Your task to perform on an android device: Open the stopwatch Image 0: 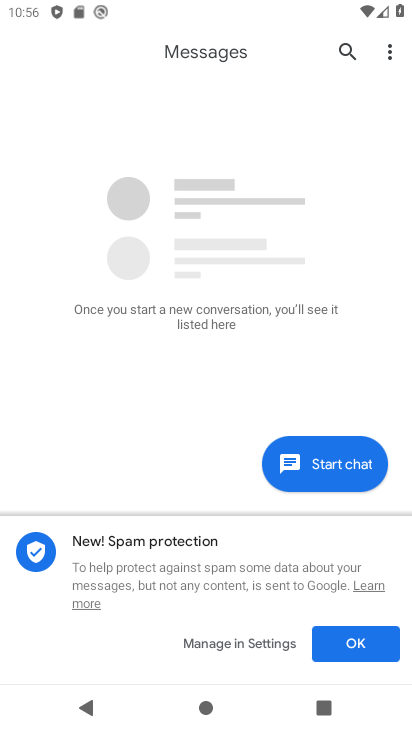
Step 0: press home button
Your task to perform on an android device: Open the stopwatch Image 1: 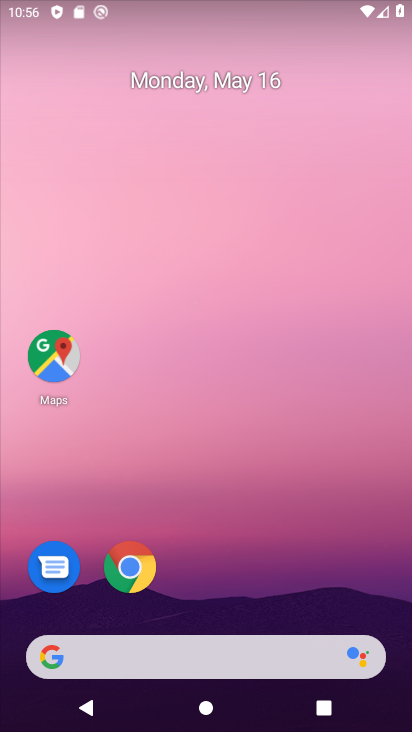
Step 1: drag from (216, 625) to (322, 27)
Your task to perform on an android device: Open the stopwatch Image 2: 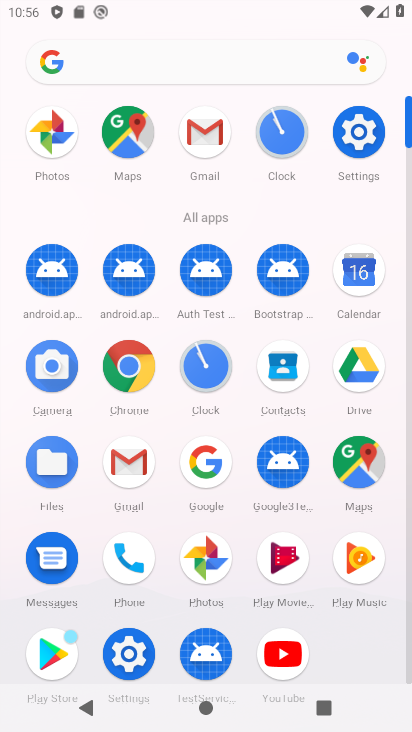
Step 2: click (213, 381)
Your task to perform on an android device: Open the stopwatch Image 3: 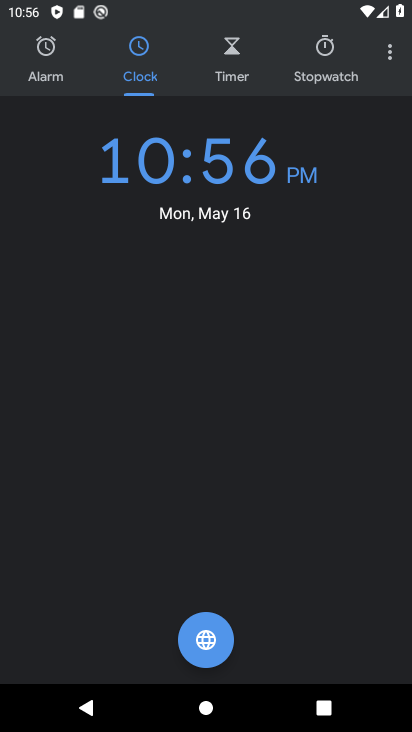
Step 3: click (325, 64)
Your task to perform on an android device: Open the stopwatch Image 4: 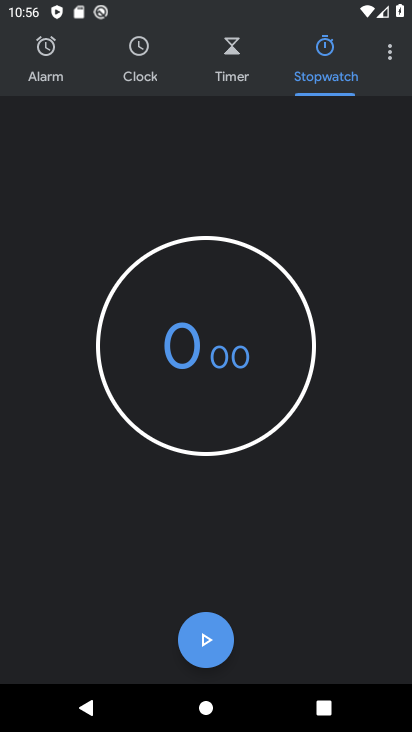
Step 4: task complete